Your task to perform on an android device: see tabs open on other devices in the chrome app Image 0: 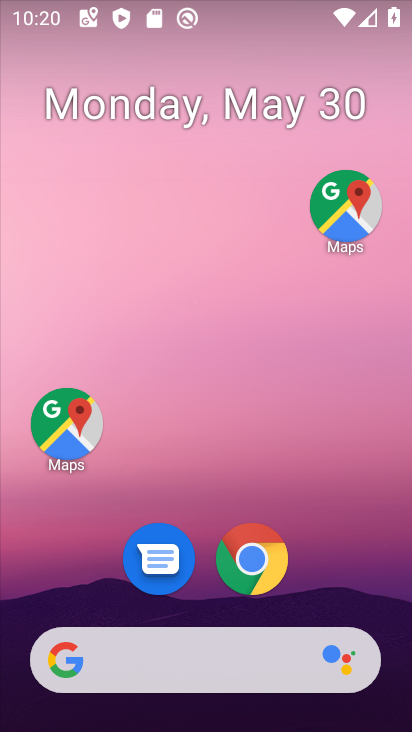
Step 0: click (250, 562)
Your task to perform on an android device: see tabs open on other devices in the chrome app Image 1: 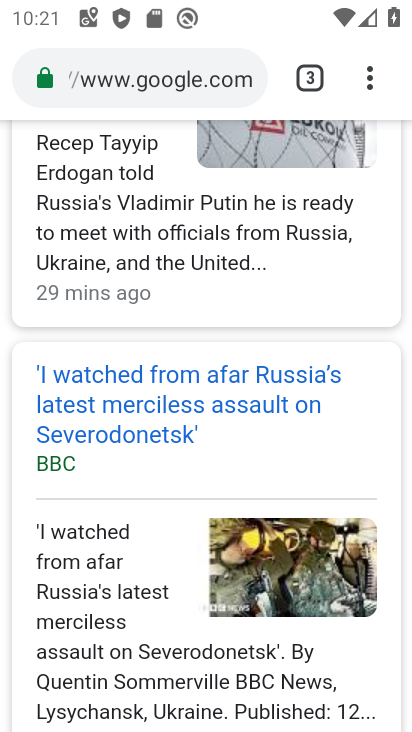
Step 1: task complete